Your task to perform on an android device: Open display settings Image 0: 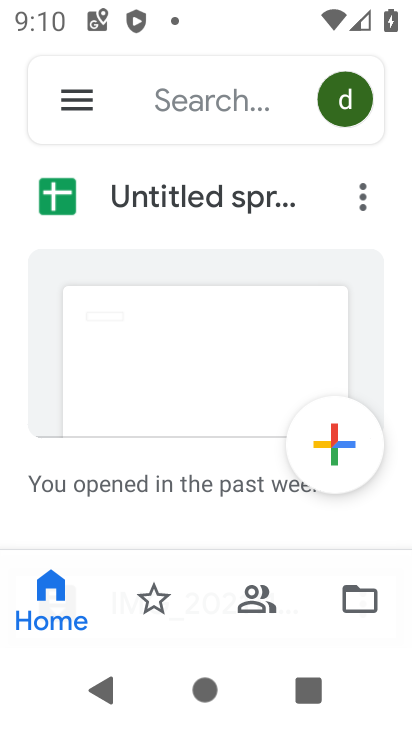
Step 0: press home button
Your task to perform on an android device: Open display settings Image 1: 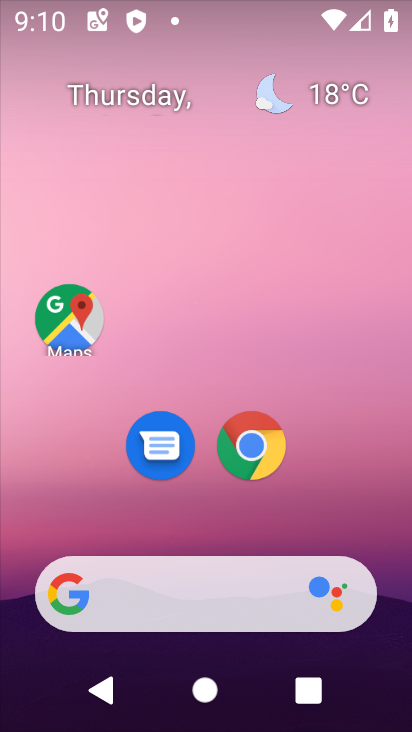
Step 1: drag from (399, 579) to (336, 122)
Your task to perform on an android device: Open display settings Image 2: 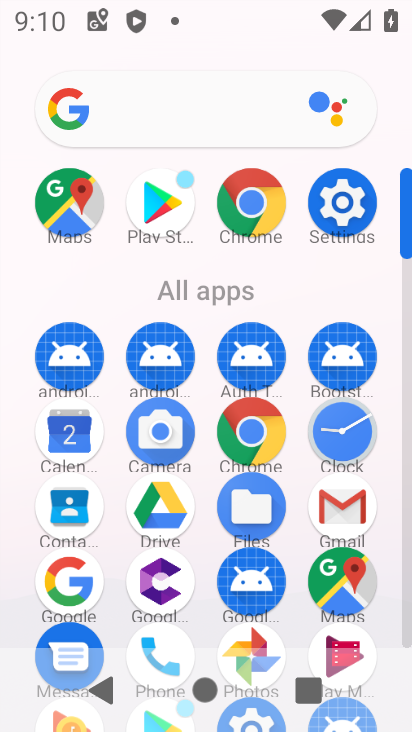
Step 2: click (358, 190)
Your task to perform on an android device: Open display settings Image 3: 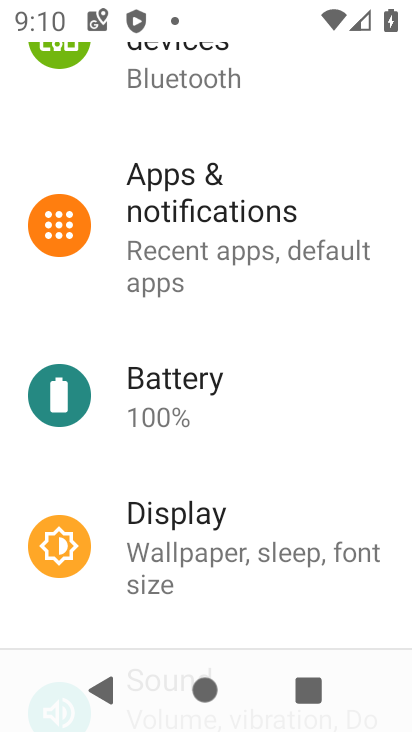
Step 3: click (225, 558)
Your task to perform on an android device: Open display settings Image 4: 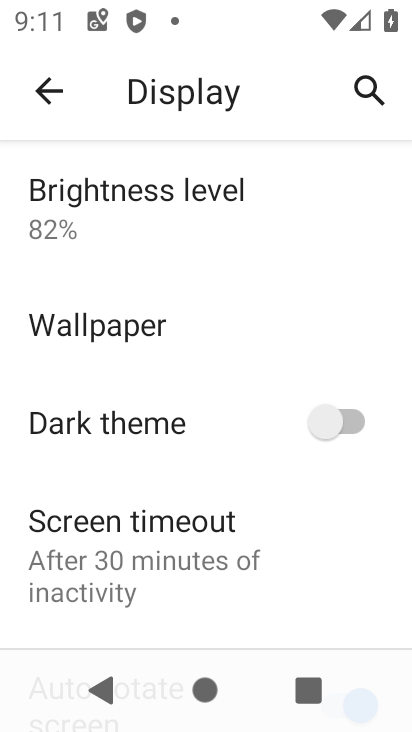
Step 4: task complete